Your task to perform on an android device: choose inbox layout in the gmail app Image 0: 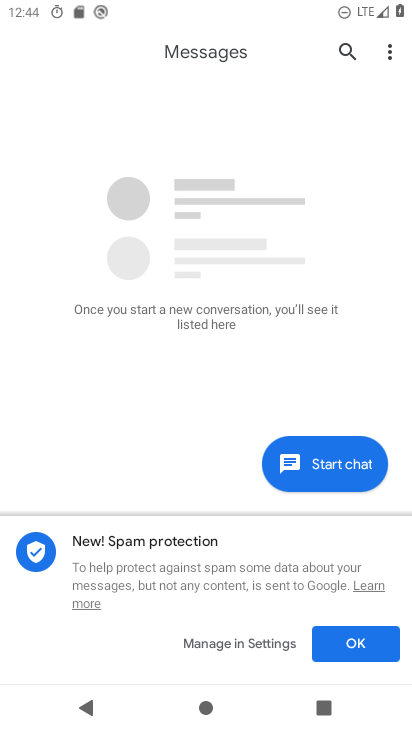
Step 0: press home button
Your task to perform on an android device: choose inbox layout in the gmail app Image 1: 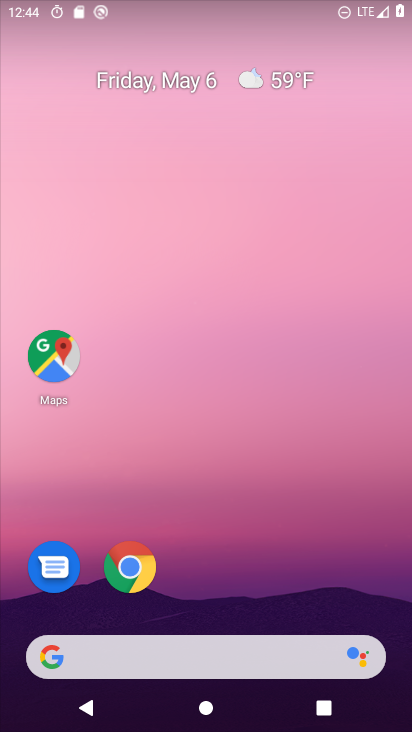
Step 1: drag from (263, 593) to (265, 25)
Your task to perform on an android device: choose inbox layout in the gmail app Image 2: 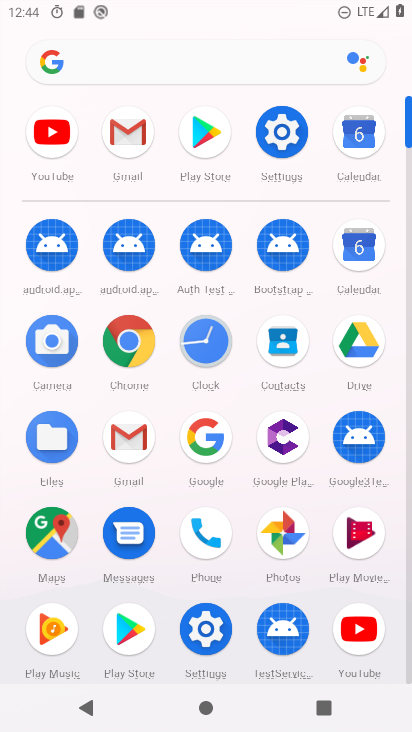
Step 2: click (131, 134)
Your task to perform on an android device: choose inbox layout in the gmail app Image 3: 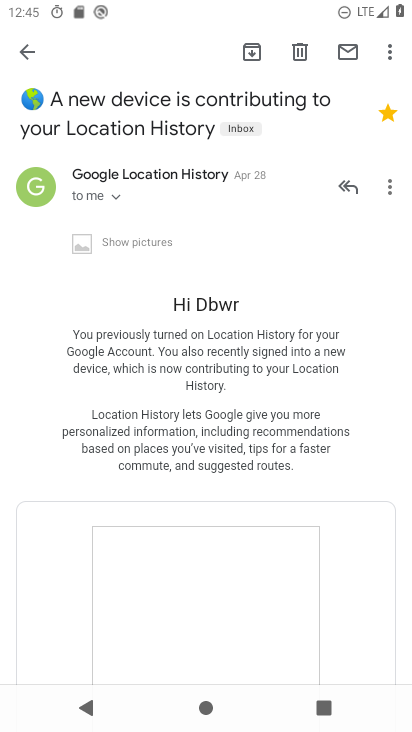
Step 3: click (27, 53)
Your task to perform on an android device: choose inbox layout in the gmail app Image 4: 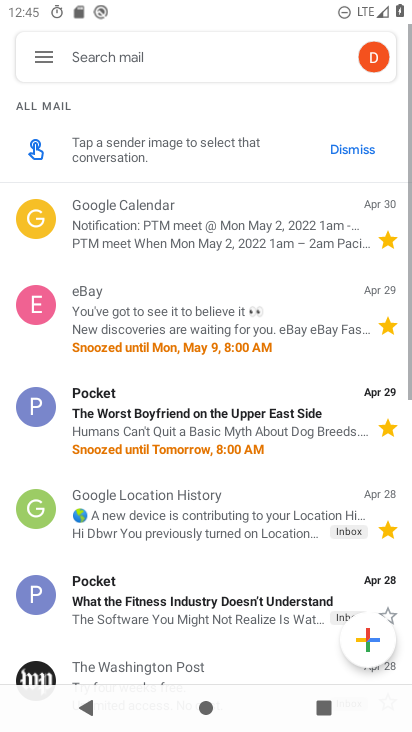
Step 4: click (44, 53)
Your task to perform on an android device: choose inbox layout in the gmail app Image 5: 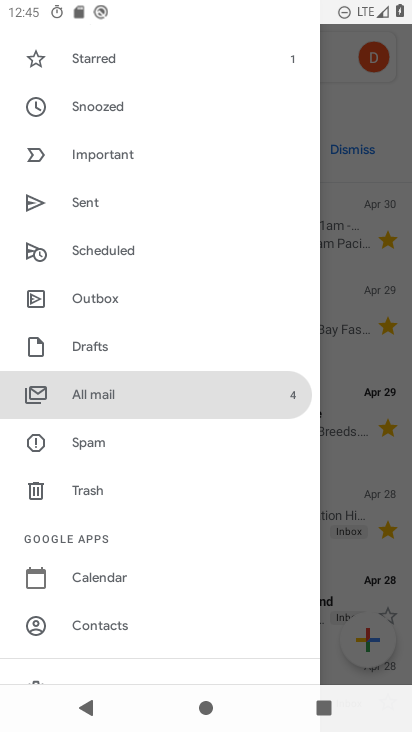
Step 5: drag from (162, 601) to (186, 225)
Your task to perform on an android device: choose inbox layout in the gmail app Image 6: 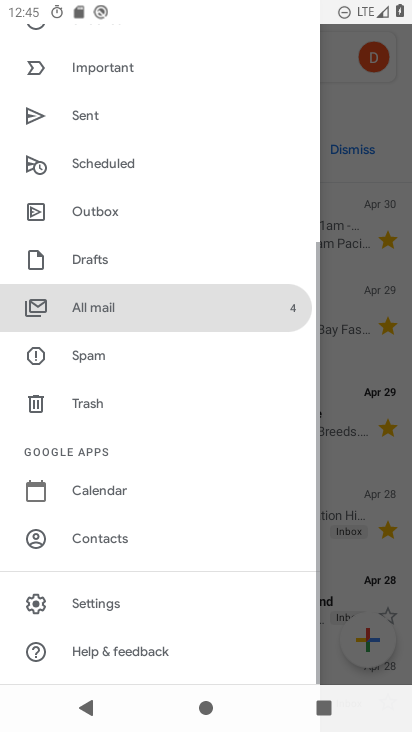
Step 6: click (107, 606)
Your task to perform on an android device: choose inbox layout in the gmail app Image 7: 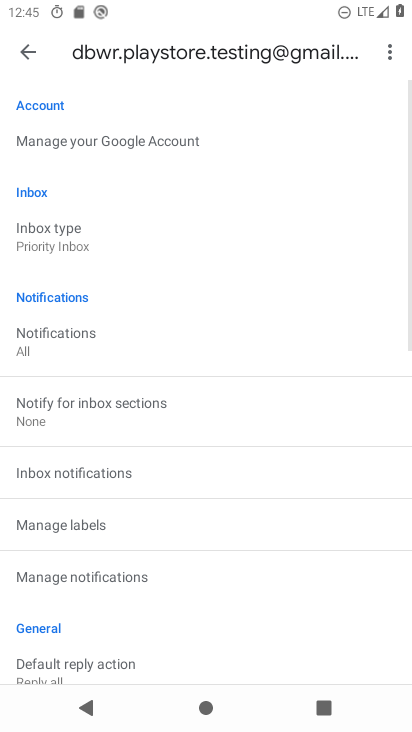
Step 7: click (64, 233)
Your task to perform on an android device: choose inbox layout in the gmail app Image 8: 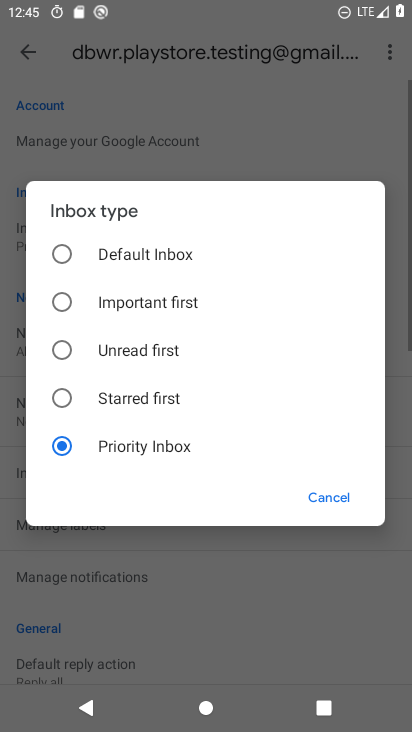
Step 8: click (85, 312)
Your task to perform on an android device: choose inbox layout in the gmail app Image 9: 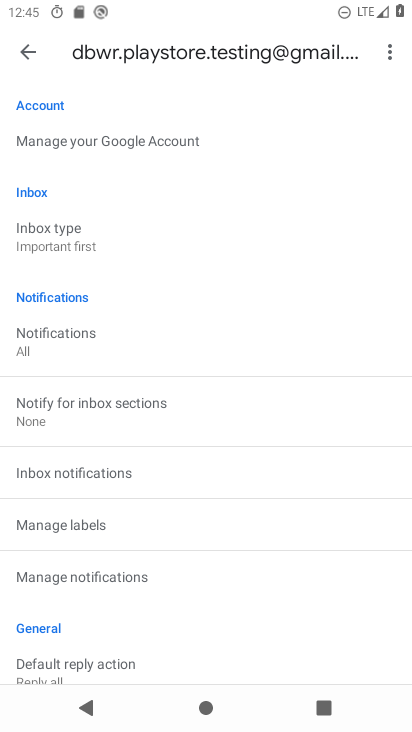
Step 9: task complete